Your task to perform on an android device: set the timer Image 0: 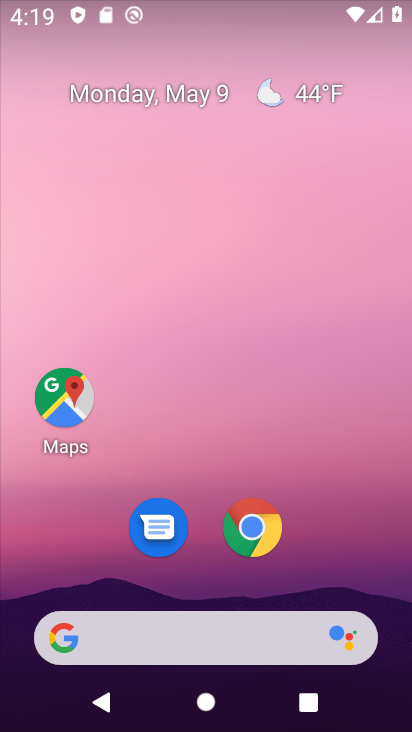
Step 0: drag from (227, 577) to (203, 348)
Your task to perform on an android device: set the timer Image 1: 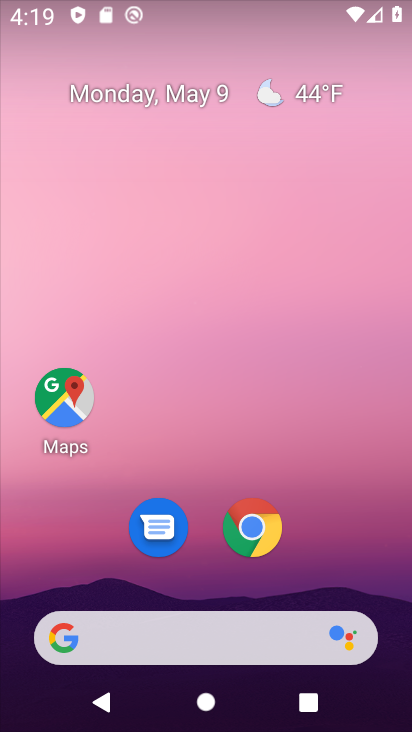
Step 1: drag from (210, 591) to (222, 391)
Your task to perform on an android device: set the timer Image 2: 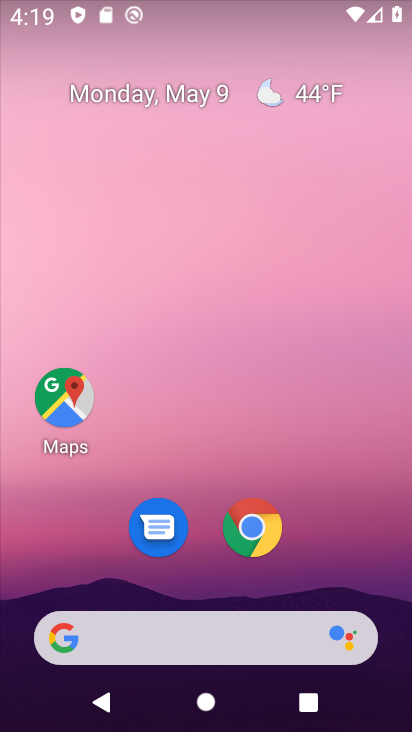
Step 2: drag from (198, 593) to (225, 16)
Your task to perform on an android device: set the timer Image 3: 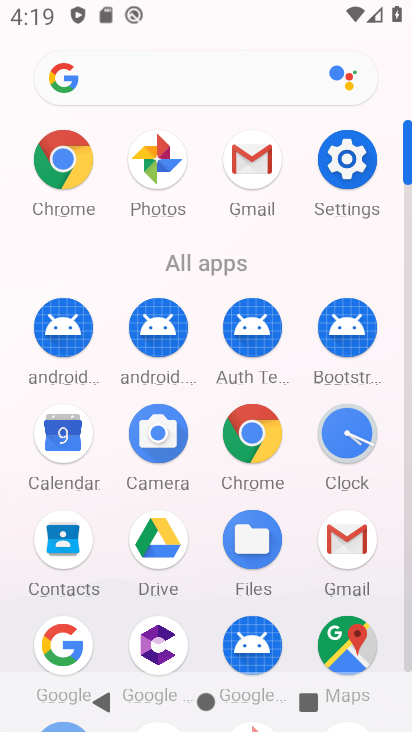
Step 3: drag from (196, 627) to (239, 234)
Your task to perform on an android device: set the timer Image 4: 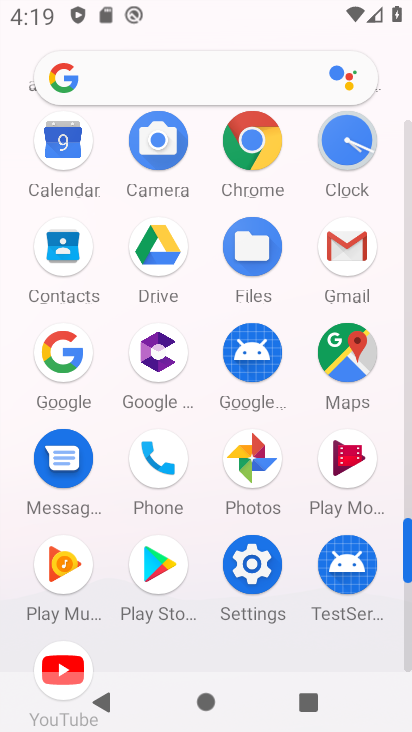
Step 4: click (358, 144)
Your task to perform on an android device: set the timer Image 5: 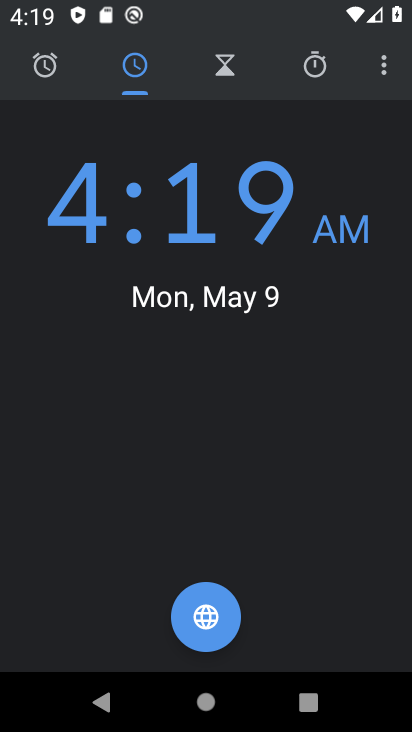
Step 5: click (339, 70)
Your task to perform on an android device: set the timer Image 6: 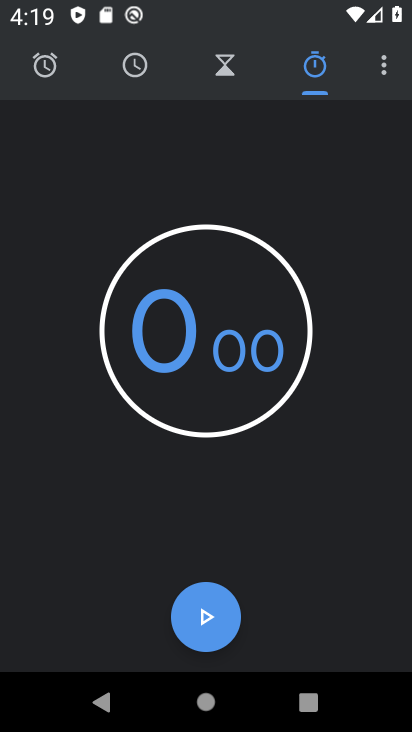
Step 6: click (276, 64)
Your task to perform on an android device: set the timer Image 7: 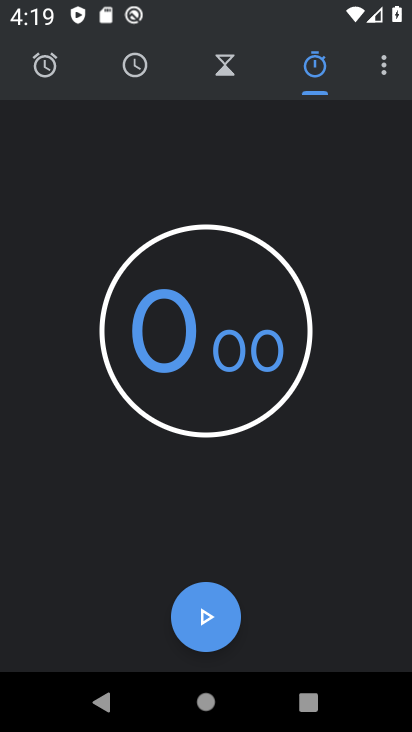
Step 7: click (234, 57)
Your task to perform on an android device: set the timer Image 8: 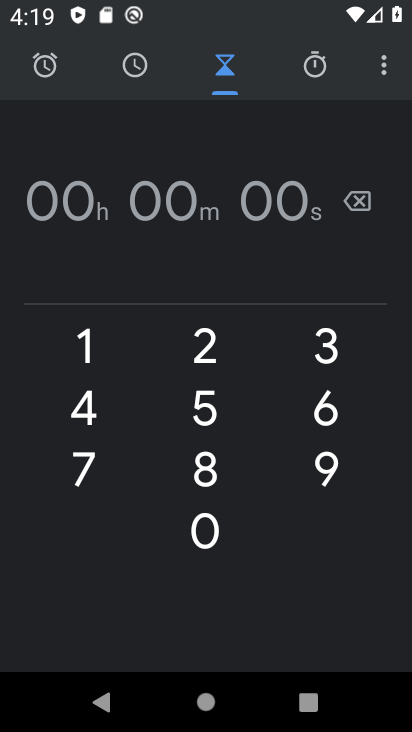
Step 8: click (195, 493)
Your task to perform on an android device: set the timer Image 9: 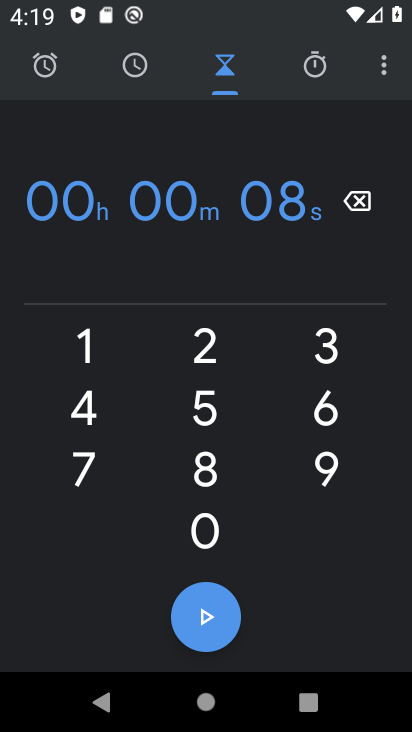
Step 9: click (203, 633)
Your task to perform on an android device: set the timer Image 10: 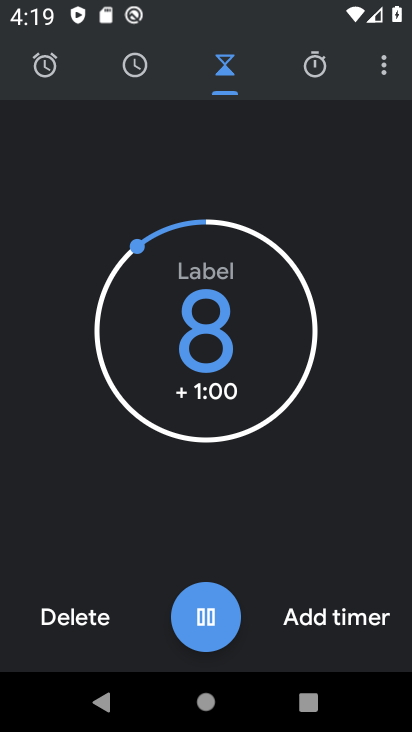
Step 10: task complete